Your task to perform on an android device: open a bookmark in the chrome app Image 0: 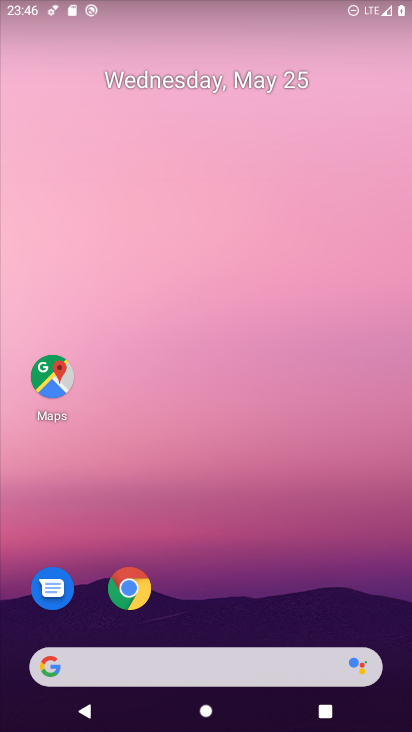
Step 0: click (133, 586)
Your task to perform on an android device: open a bookmark in the chrome app Image 1: 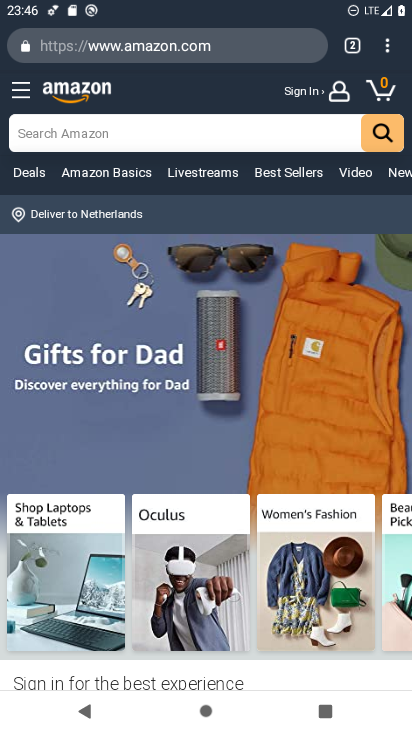
Step 1: click (388, 48)
Your task to perform on an android device: open a bookmark in the chrome app Image 2: 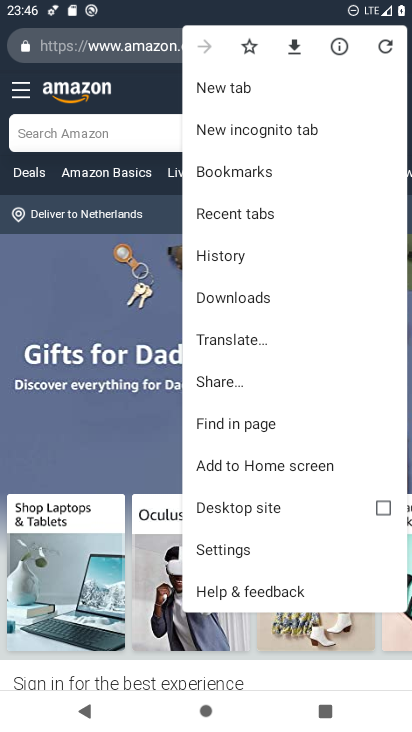
Step 2: click (239, 172)
Your task to perform on an android device: open a bookmark in the chrome app Image 3: 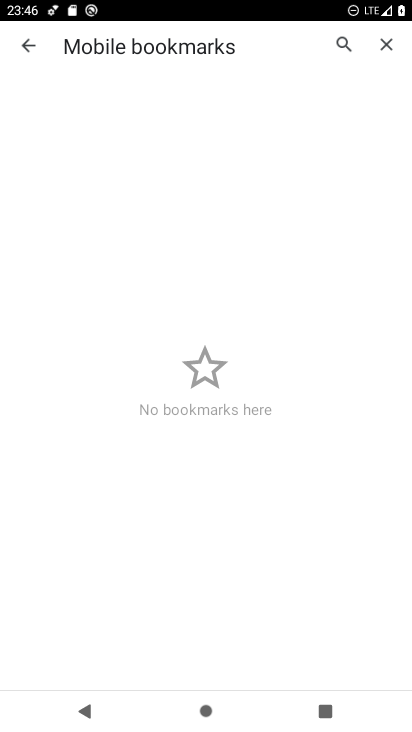
Step 3: task complete